Your task to perform on an android device: turn on the 24-hour format for clock Image 0: 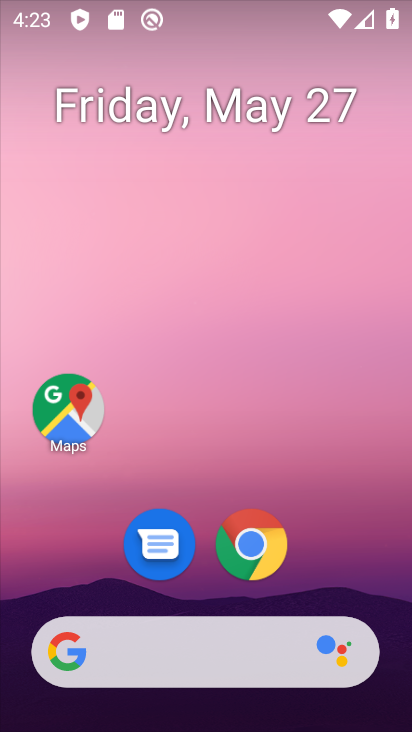
Step 0: drag from (77, 622) to (221, 101)
Your task to perform on an android device: turn on the 24-hour format for clock Image 1: 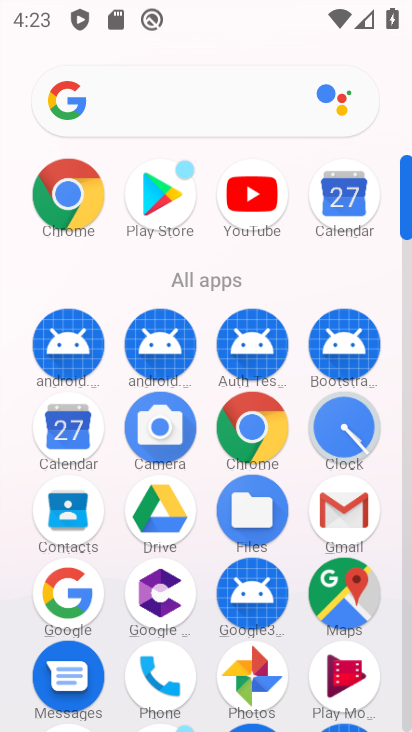
Step 1: click (333, 445)
Your task to perform on an android device: turn on the 24-hour format for clock Image 2: 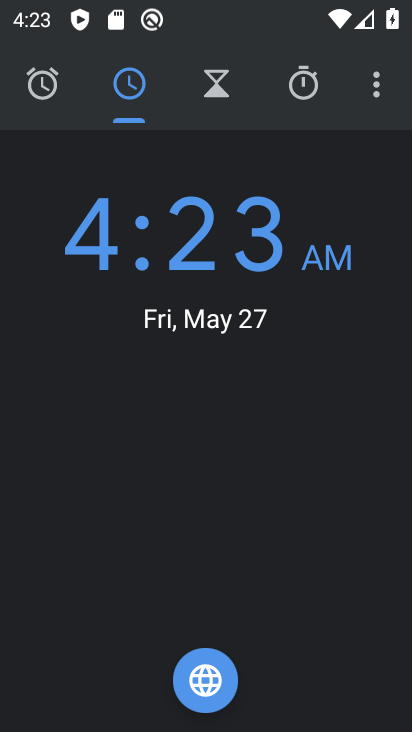
Step 2: click (387, 98)
Your task to perform on an android device: turn on the 24-hour format for clock Image 3: 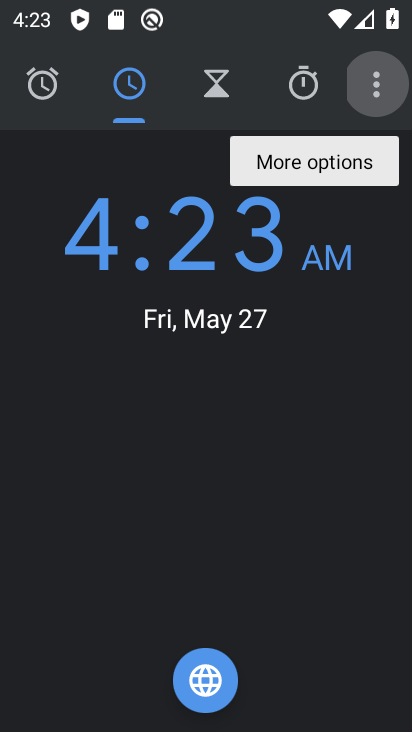
Step 3: click (388, 84)
Your task to perform on an android device: turn on the 24-hour format for clock Image 4: 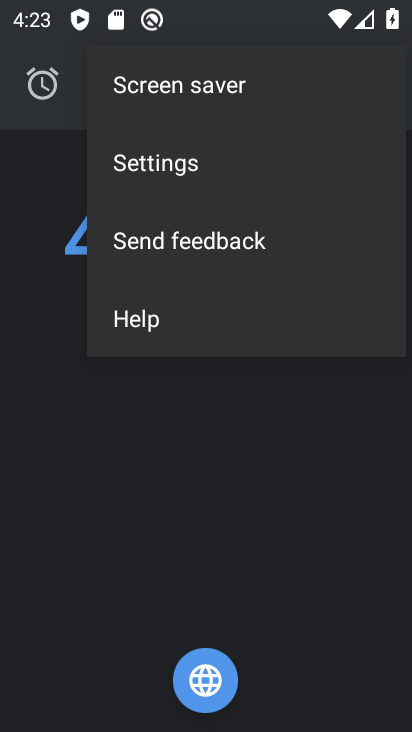
Step 4: click (328, 153)
Your task to perform on an android device: turn on the 24-hour format for clock Image 5: 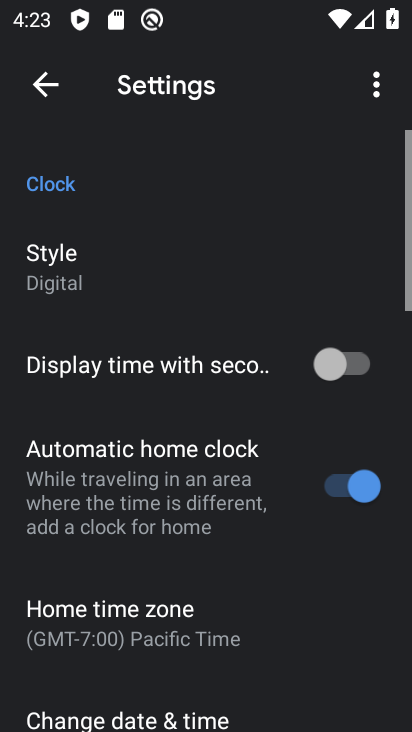
Step 5: drag from (128, 585) to (227, 206)
Your task to perform on an android device: turn on the 24-hour format for clock Image 6: 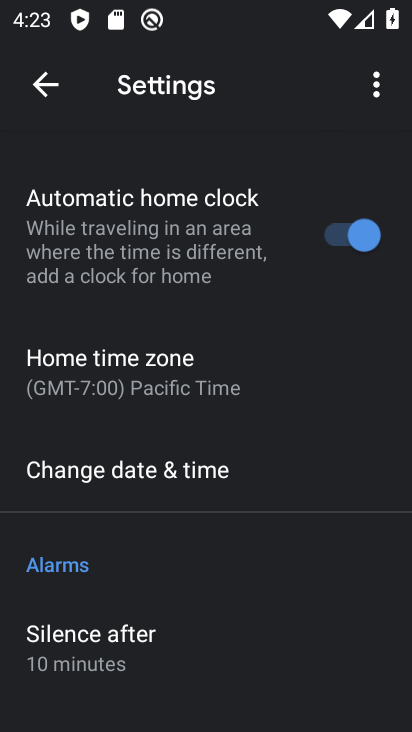
Step 6: click (192, 470)
Your task to perform on an android device: turn on the 24-hour format for clock Image 7: 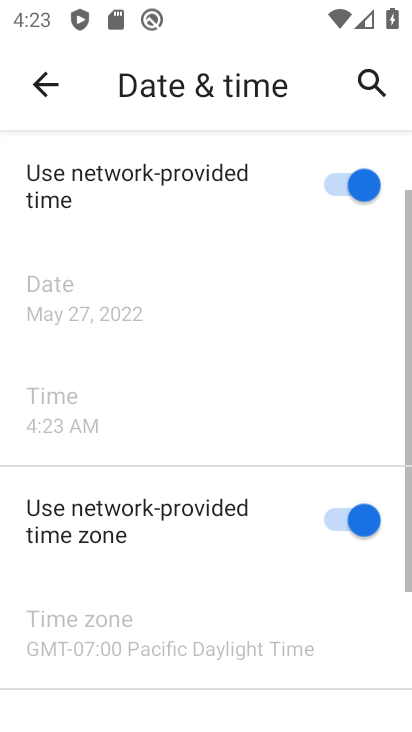
Step 7: drag from (169, 641) to (303, 68)
Your task to perform on an android device: turn on the 24-hour format for clock Image 8: 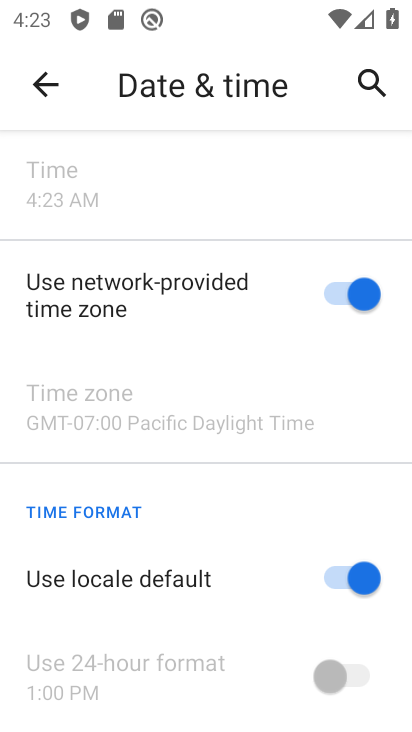
Step 8: drag from (165, 356) to (210, 226)
Your task to perform on an android device: turn on the 24-hour format for clock Image 9: 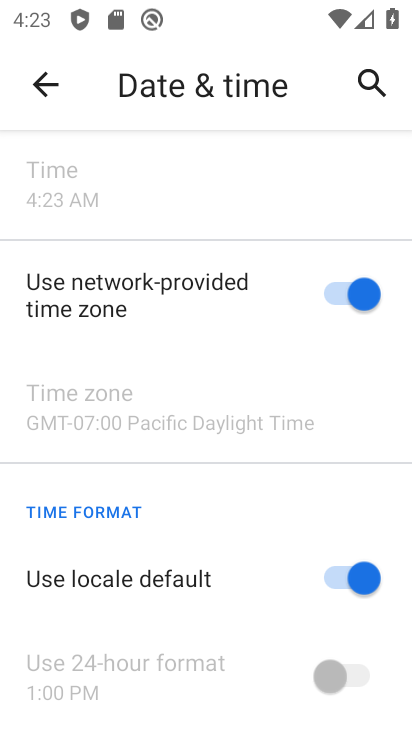
Step 9: click (340, 586)
Your task to perform on an android device: turn on the 24-hour format for clock Image 10: 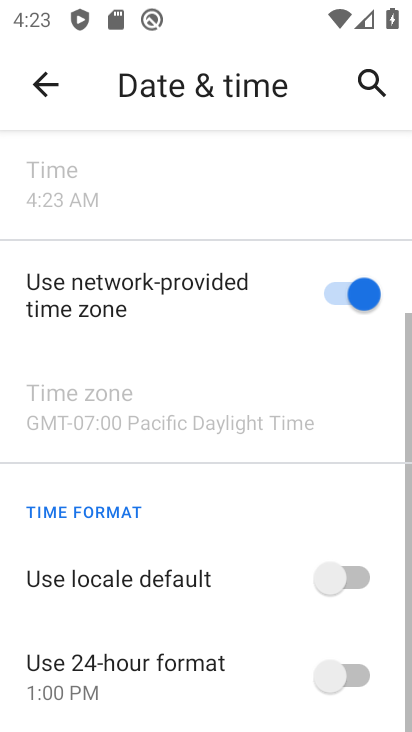
Step 10: click (377, 692)
Your task to perform on an android device: turn on the 24-hour format for clock Image 11: 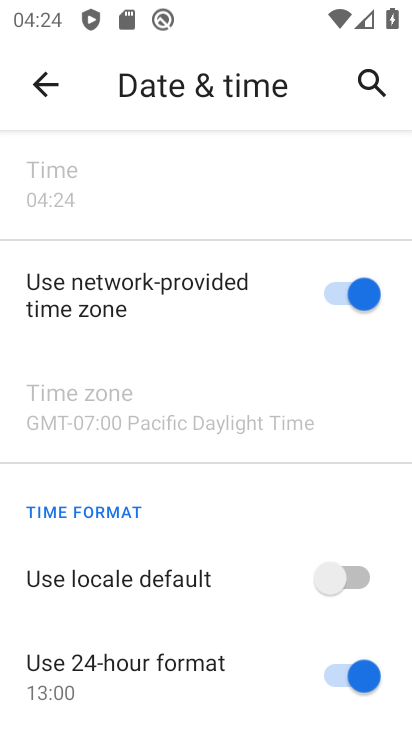
Step 11: task complete